Your task to perform on an android device: Open display settings Image 0: 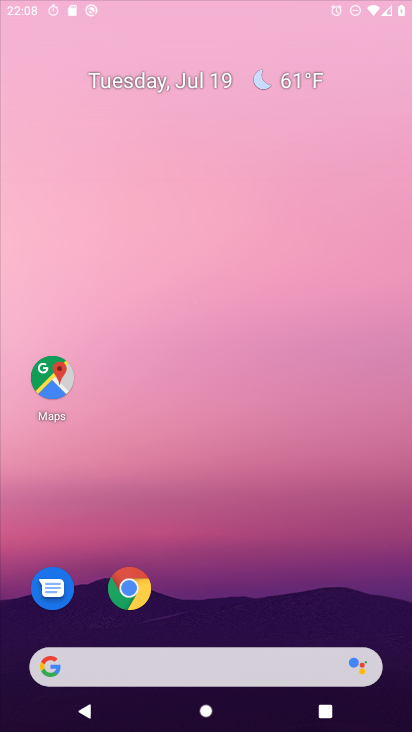
Step 0: press home button
Your task to perform on an android device: Open display settings Image 1: 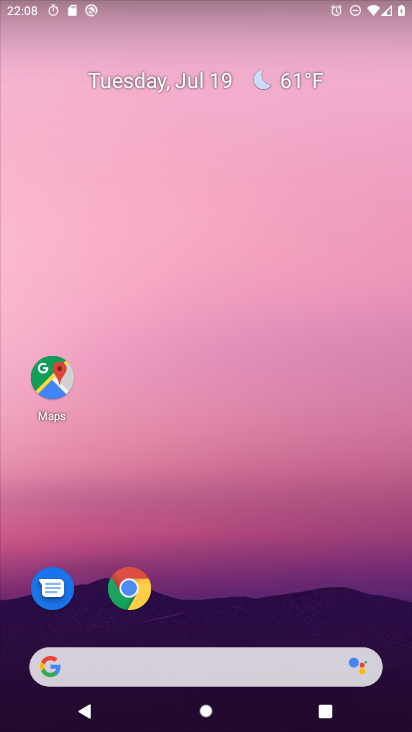
Step 1: drag from (222, 632) to (218, 21)
Your task to perform on an android device: Open display settings Image 2: 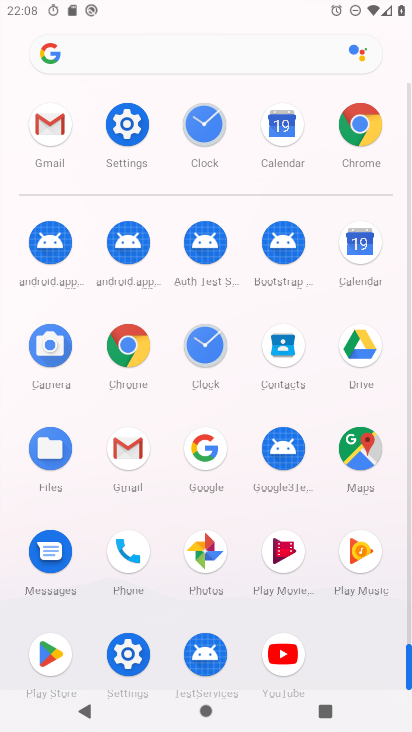
Step 2: click (122, 116)
Your task to perform on an android device: Open display settings Image 3: 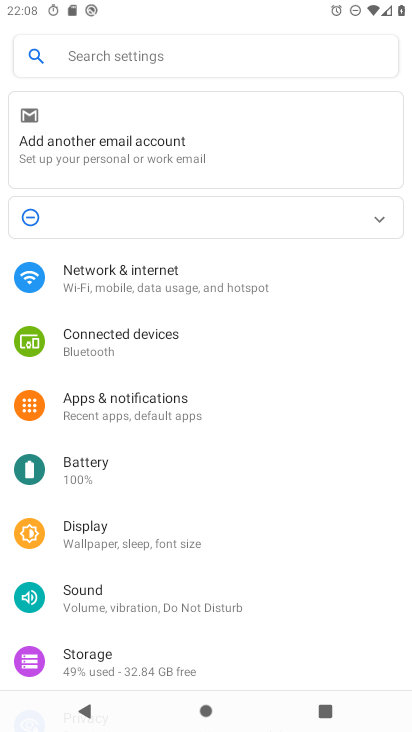
Step 3: click (122, 521)
Your task to perform on an android device: Open display settings Image 4: 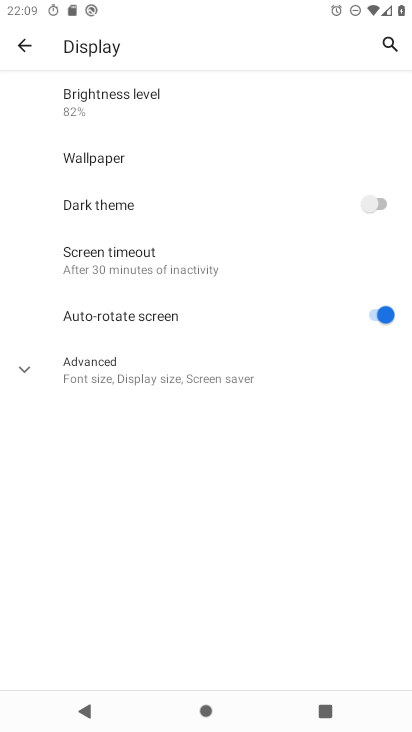
Step 4: click (24, 361)
Your task to perform on an android device: Open display settings Image 5: 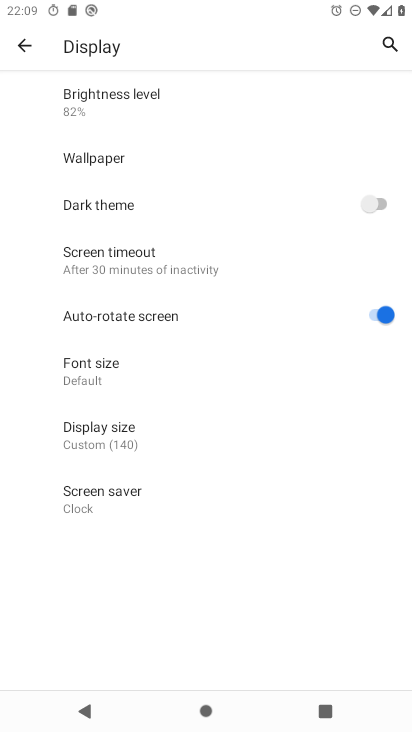
Step 5: task complete